Your task to perform on an android device: check google app version Image 0: 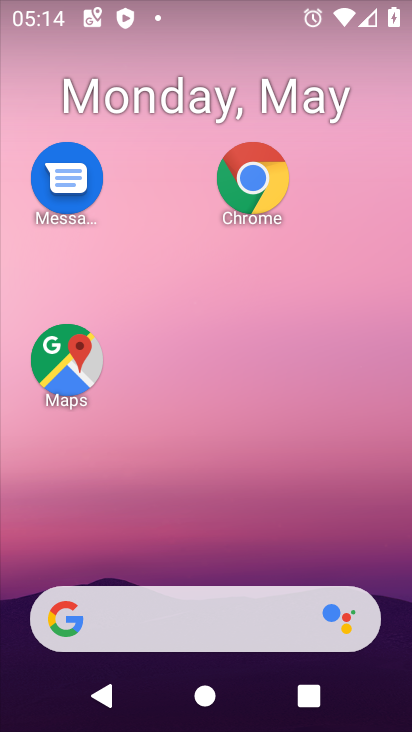
Step 0: click (72, 618)
Your task to perform on an android device: check google app version Image 1: 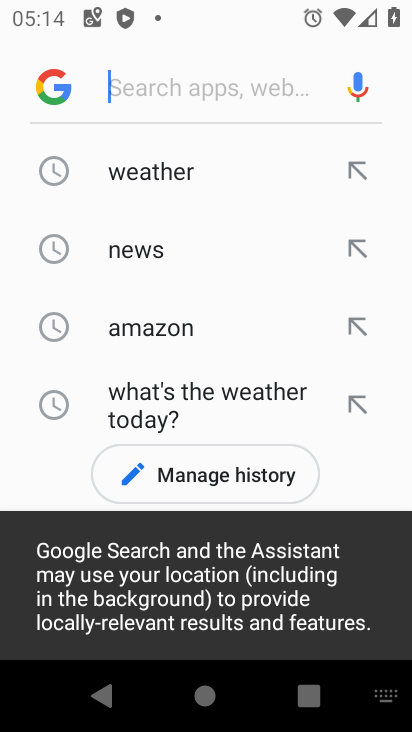
Step 1: click (45, 99)
Your task to perform on an android device: check google app version Image 2: 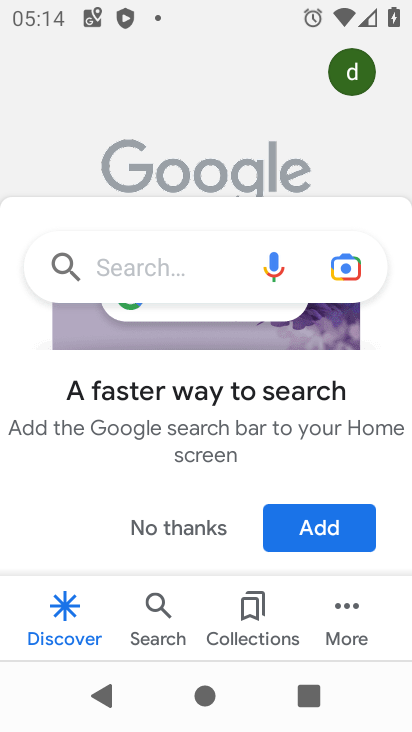
Step 2: click (339, 633)
Your task to perform on an android device: check google app version Image 3: 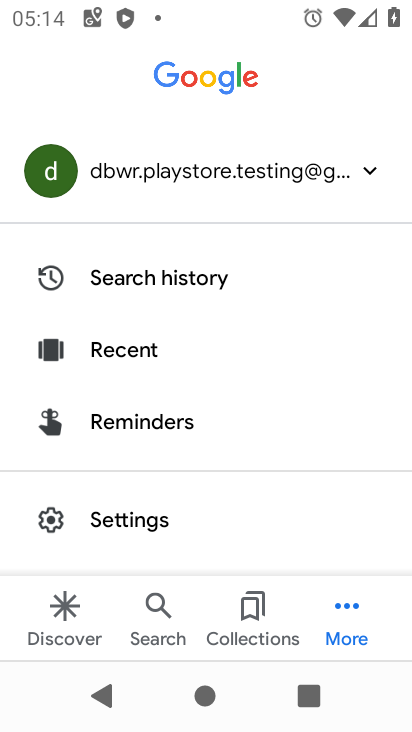
Step 3: click (119, 521)
Your task to perform on an android device: check google app version Image 4: 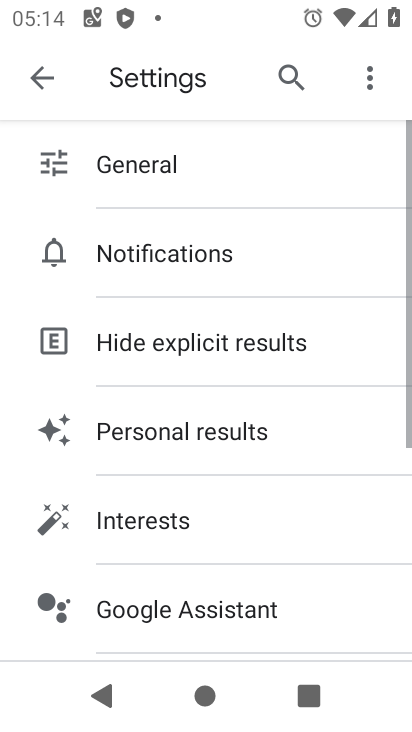
Step 4: drag from (140, 558) to (240, 9)
Your task to perform on an android device: check google app version Image 5: 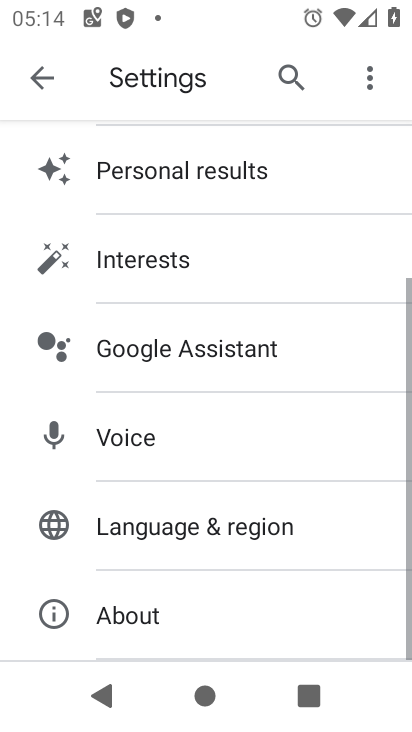
Step 5: click (119, 610)
Your task to perform on an android device: check google app version Image 6: 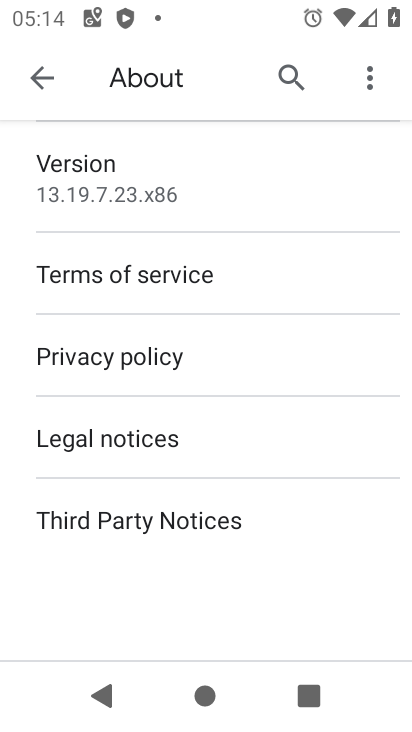
Step 6: task complete